Your task to perform on an android device: What is the recent news? Image 0: 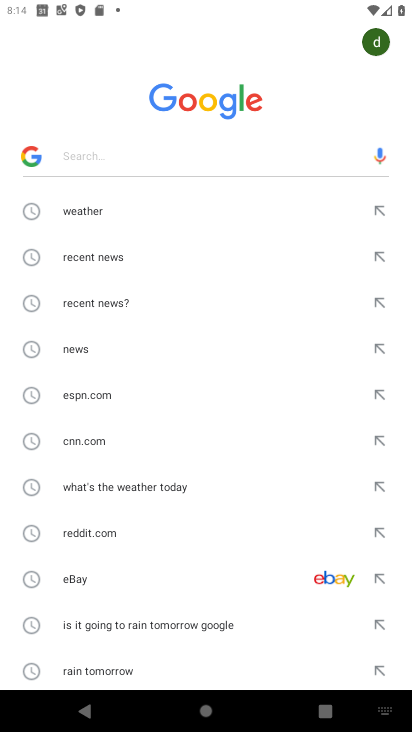
Step 0: press home button
Your task to perform on an android device: What is the recent news? Image 1: 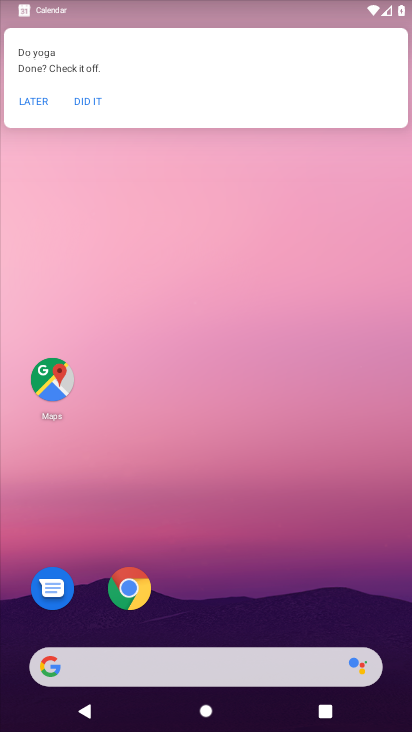
Step 1: click (142, 676)
Your task to perform on an android device: What is the recent news? Image 2: 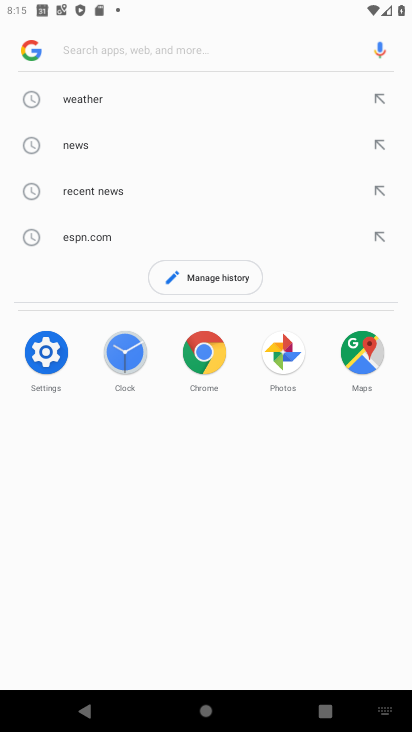
Step 2: click (24, 51)
Your task to perform on an android device: What is the recent news? Image 3: 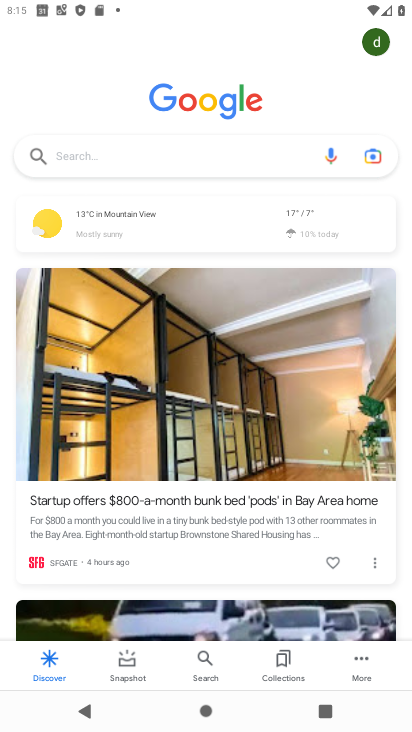
Step 3: task complete